Your task to perform on an android device: find snoozed emails in the gmail app Image 0: 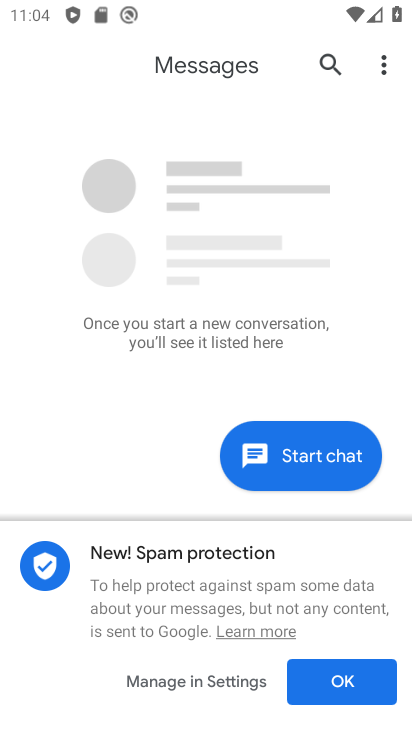
Step 0: press home button
Your task to perform on an android device: find snoozed emails in the gmail app Image 1: 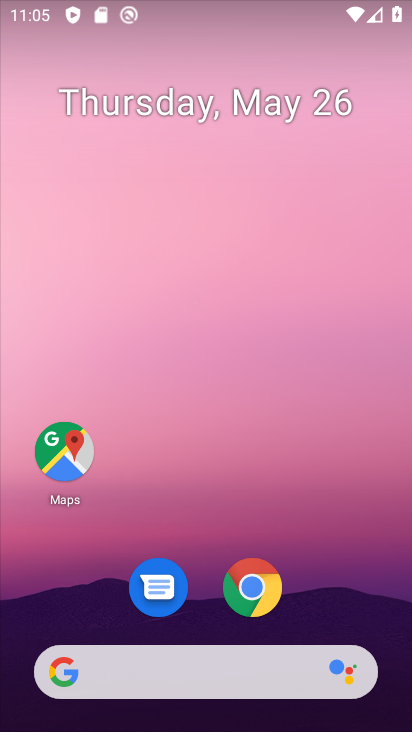
Step 1: drag from (210, 663) to (301, 103)
Your task to perform on an android device: find snoozed emails in the gmail app Image 2: 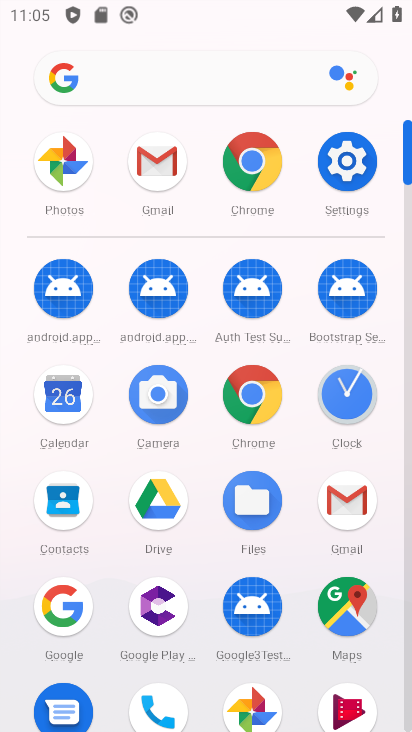
Step 2: click (151, 186)
Your task to perform on an android device: find snoozed emails in the gmail app Image 3: 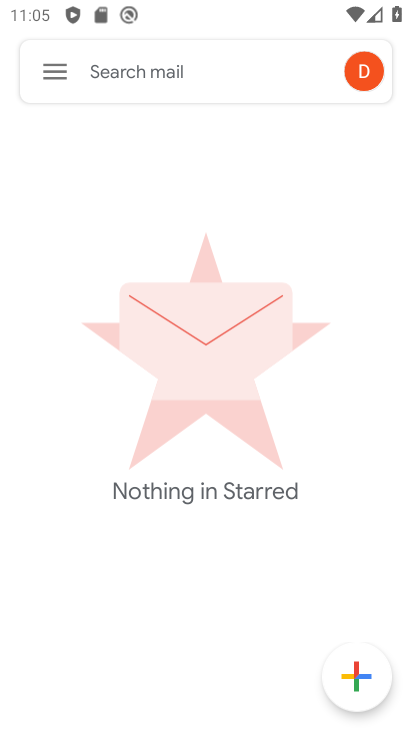
Step 3: click (47, 64)
Your task to perform on an android device: find snoozed emails in the gmail app Image 4: 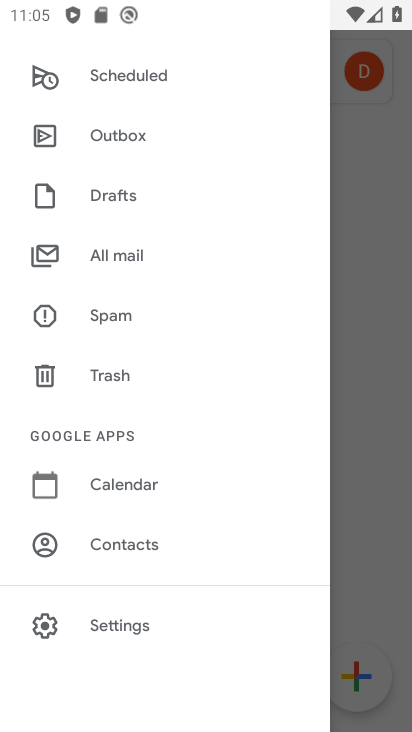
Step 4: drag from (96, 257) to (70, 386)
Your task to perform on an android device: find snoozed emails in the gmail app Image 5: 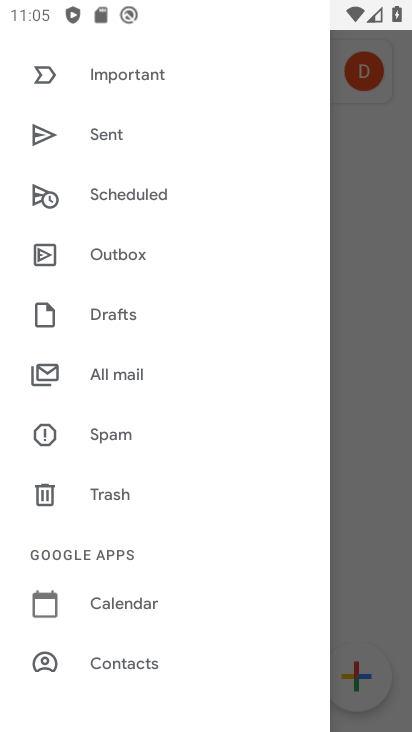
Step 5: drag from (121, 196) to (92, 333)
Your task to perform on an android device: find snoozed emails in the gmail app Image 6: 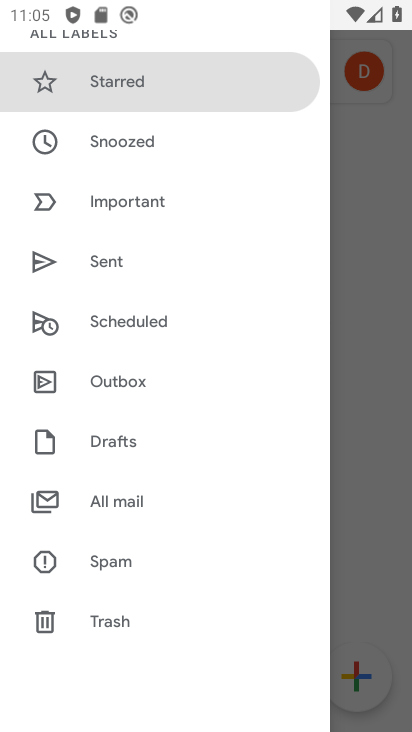
Step 6: click (122, 142)
Your task to perform on an android device: find snoozed emails in the gmail app Image 7: 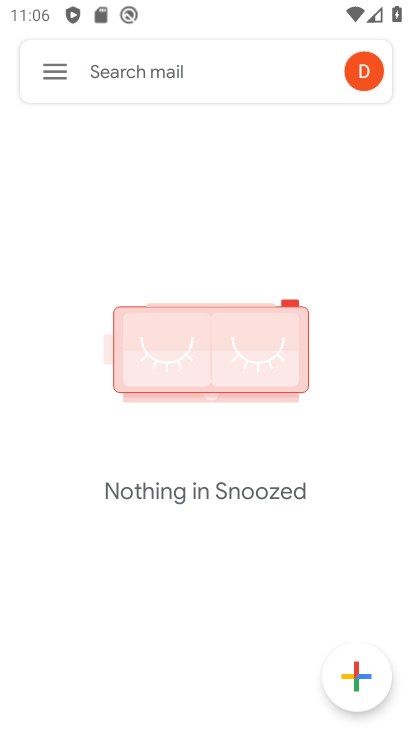
Step 7: task complete